Your task to perform on an android device: Open Youtube and go to "Your channel" Image 0: 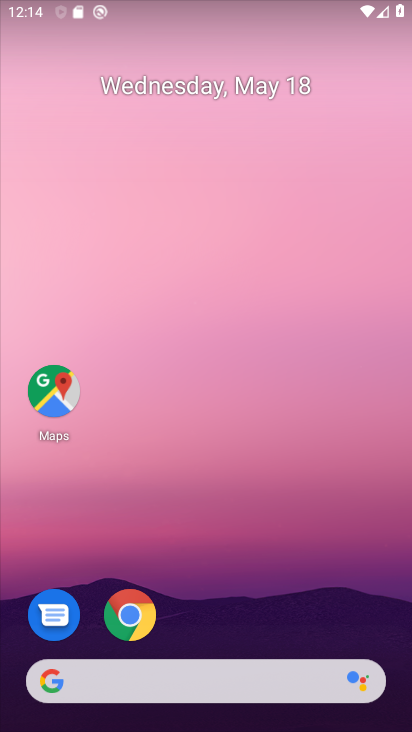
Step 0: drag from (205, 612) to (219, 122)
Your task to perform on an android device: Open Youtube and go to "Your channel" Image 1: 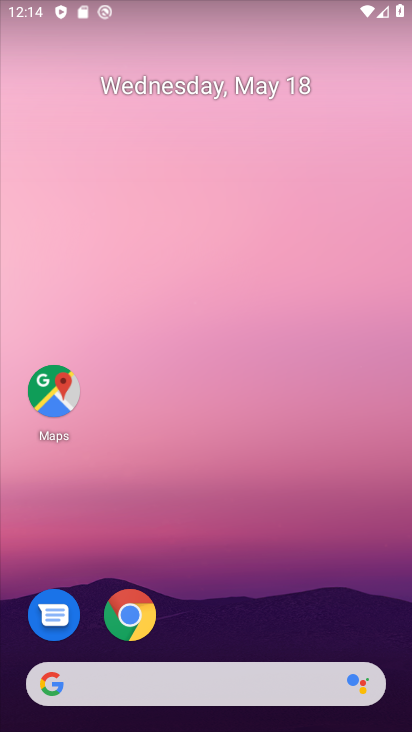
Step 1: click (219, 122)
Your task to perform on an android device: Open Youtube and go to "Your channel" Image 2: 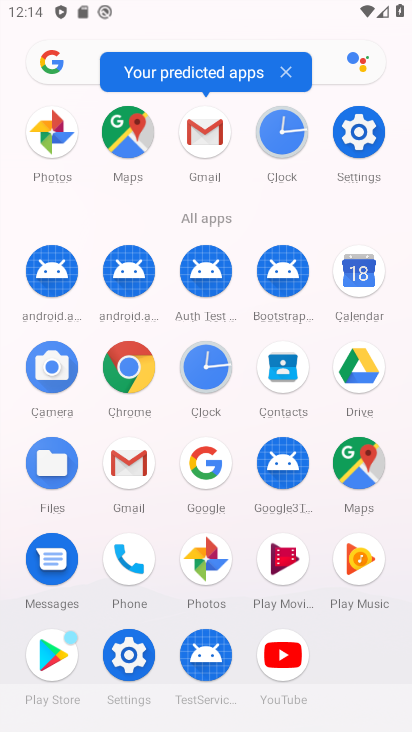
Step 2: click (289, 669)
Your task to perform on an android device: Open Youtube and go to "Your channel" Image 3: 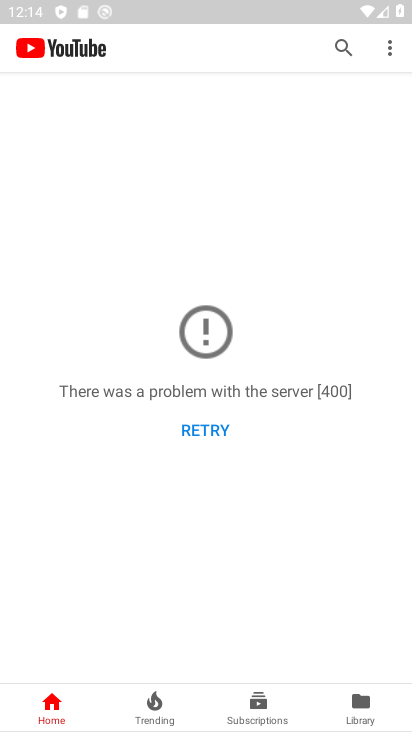
Step 3: click (202, 433)
Your task to perform on an android device: Open Youtube and go to "Your channel" Image 4: 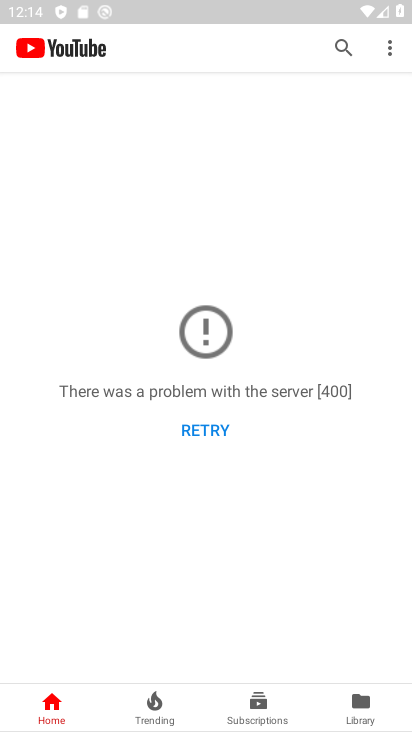
Step 4: click (212, 426)
Your task to perform on an android device: Open Youtube and go to "Your channel" Image 5: 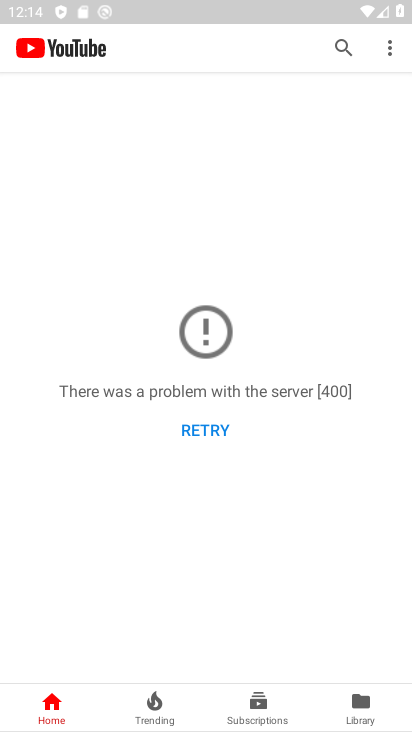
Step 5: click (57, 41)
Your task to perform on an android device: Open Youtube and go to "Your channel" Image 6: 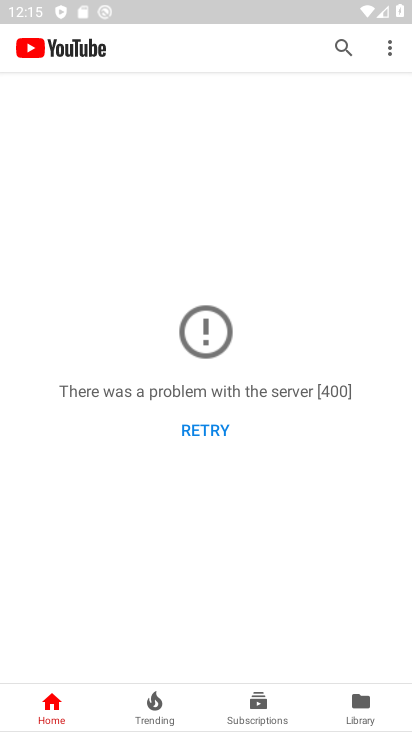
Step 6: click (396, 46)
Your task to perform on an android device: Open Youtube and go to "Your channel" Image 7: 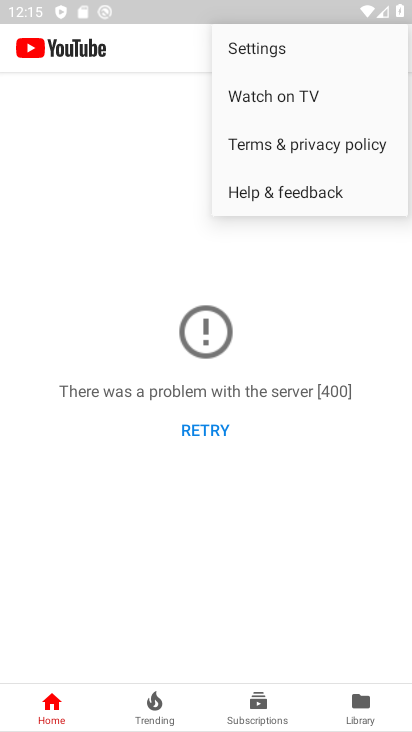
Step 7: click (317, 502)
Your task to perform on an android device: Open Youtube and go to "Your channel" Image 8: 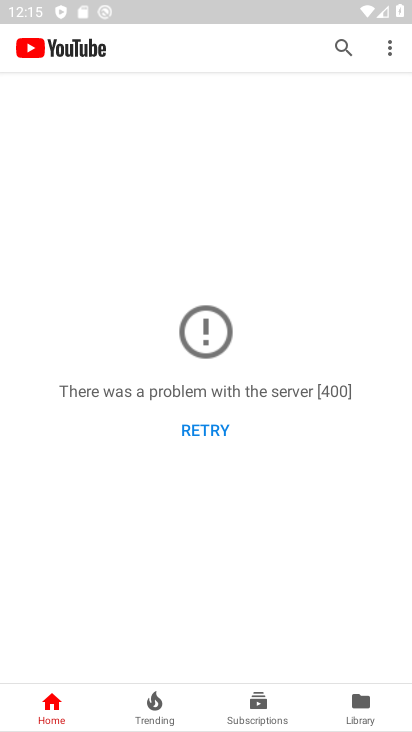
Step 8: click (355, 710)
Your task to perform on an android device: Open Youtube and go to "Your channel" Image 9: 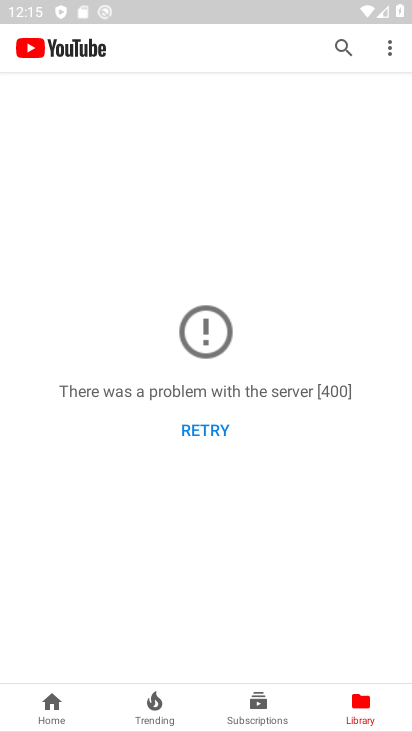
Step 9: task complete